Your task to perform on an android device: Open Youtube and go to "Your channel" Image 0: 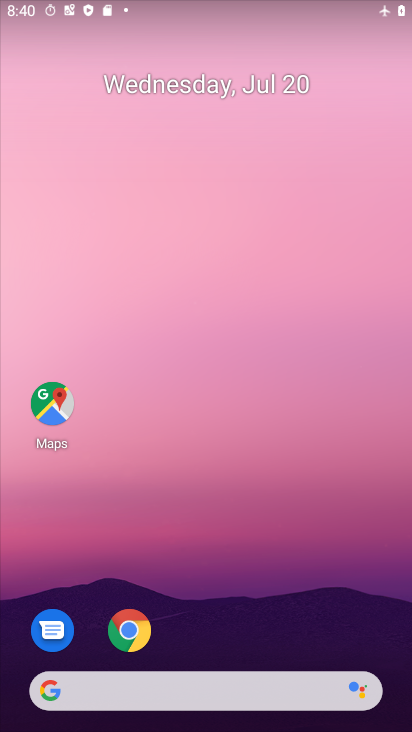
Step 0: drag from (204, 697) to (175, 140)
Your task to perform on an android device: Open Youtube and go to "Your channel" Image 1: 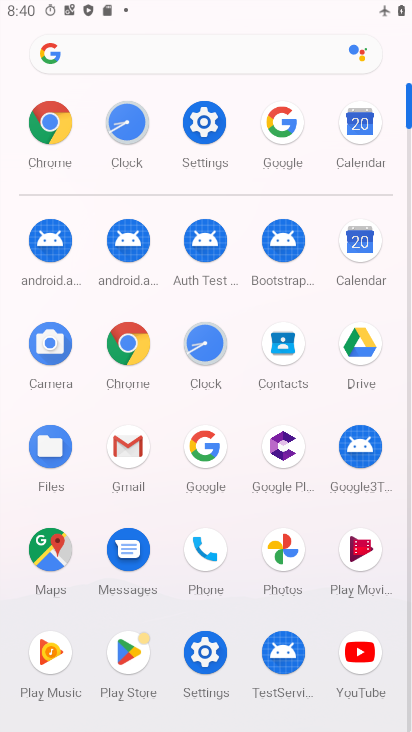
Step 1: drag from (205, 486) to (237, 183)
Your task to perform on an android device: Open Youtube and go to "Your channel" Image 2: 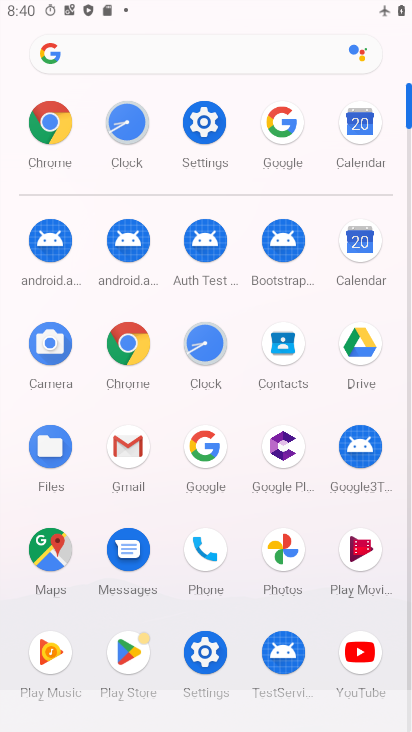
Step 2: drag from (154, 483) to (188, 106)
Your task to perform on an android device: Open Youtube and go to "Your channel" Image 3: 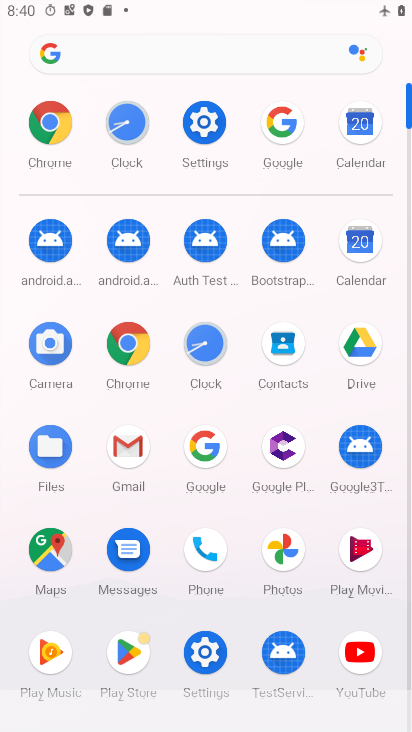
Step 3: click (353, 668)
Your task to perform on an android device: Open Youtube and go to "Your channel" Image 4: 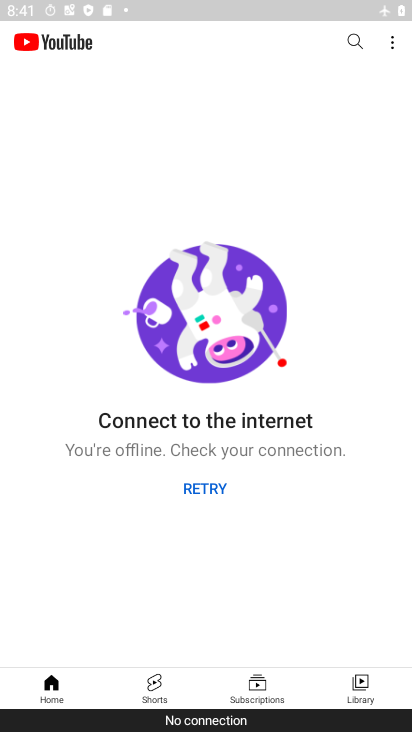
Step 4: task complete